Your task to perform on an android device: Open the map Image 0: 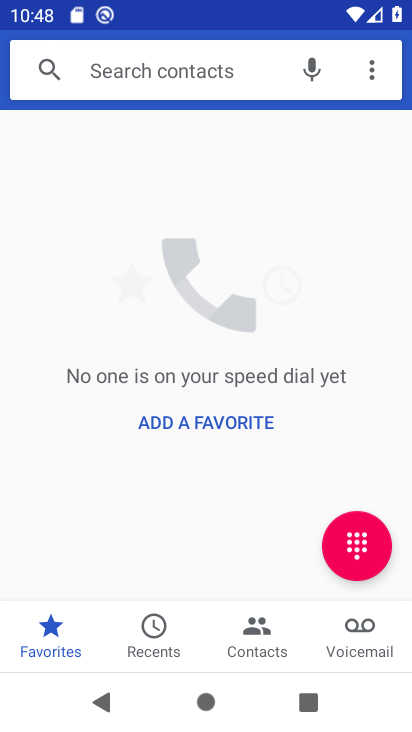
Step 0: press home button
Your task to perform on an android device: Open the map Image 1: 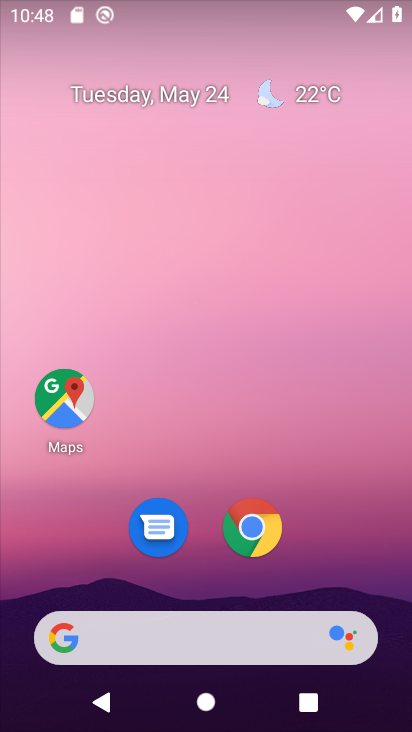
Step 1: click (63, 416)
Your task to perform on an android device: Open the map Image 2: 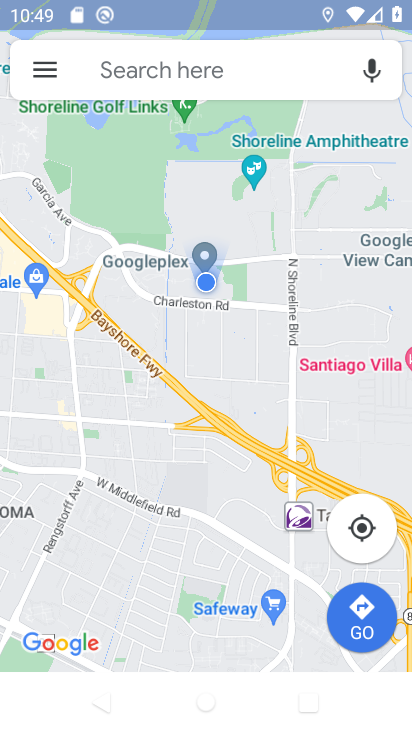
Step 2: task complete